Your task to perform on an android device: Open calendar and show me the fourth week of next month Image 0: 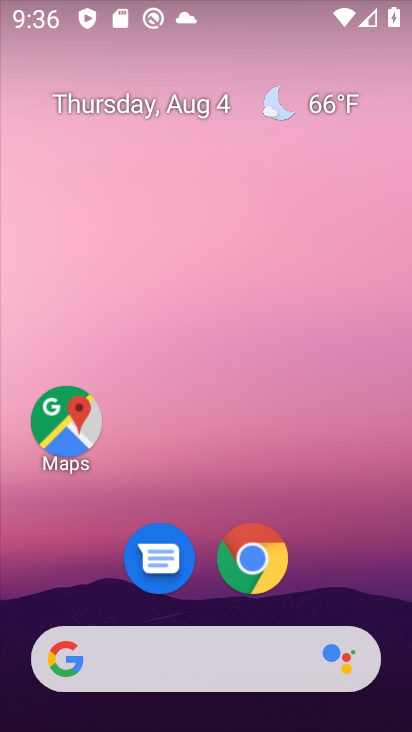
Step 0: drag from (327, 572) to (290, 90)
Your task to perform on an android device: Open calendar and show me the fourth week of next month Image 1: 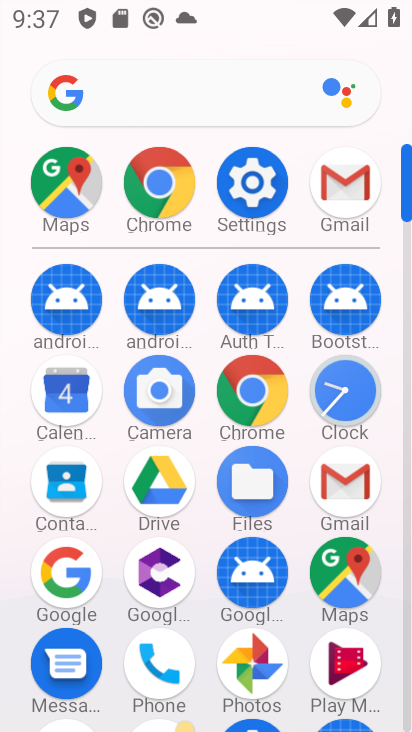
Step 1: click (70, 412)
Your task to perform on an android device: Open calendar and show me the fourth week of next month Image 2: 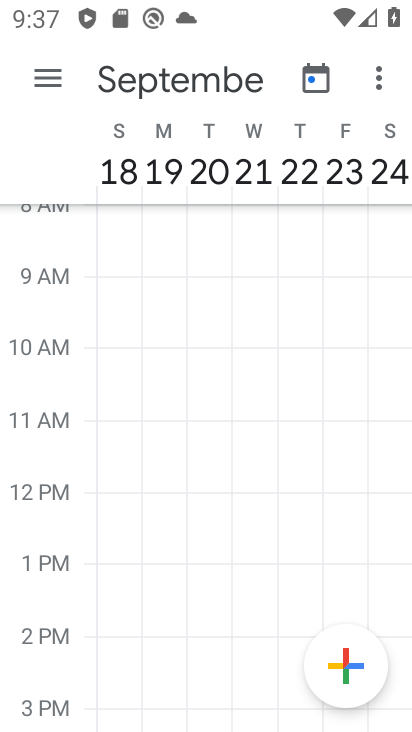
Step 2: click (177, 85)
Your task to perform on an android device: Open calendar and show me the fourth week of next month Image 3: 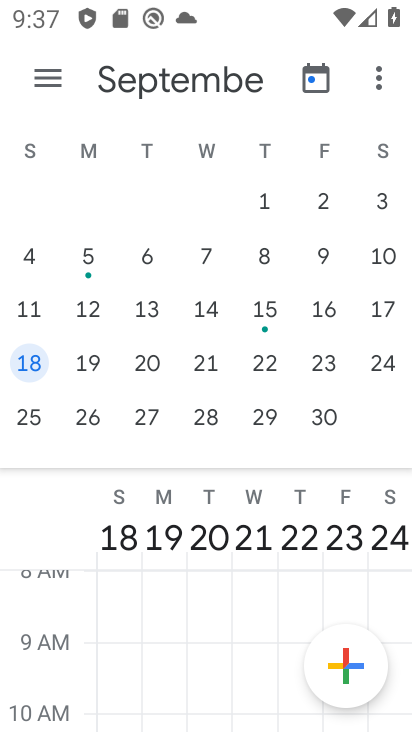
Step 3: click (94, 410)
Your task to perform on an android device: Open calendar and show me the fourth week of next month Image 4: 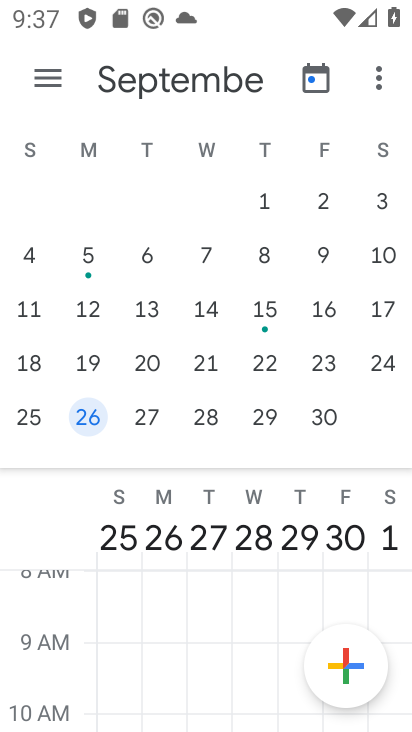
Step 4: task complete